Your task to perform on an android device: Search for pizza restaurants on Maps Image 0: 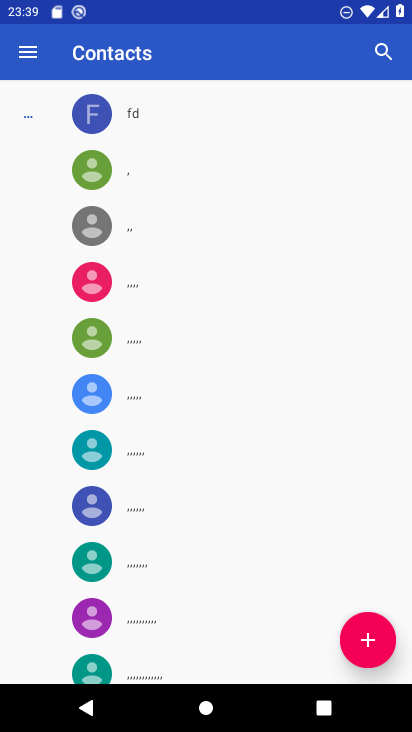
Step 0: press home button
Your task to perform on an android device: Search for pizza restaurants on Maps Image 1: 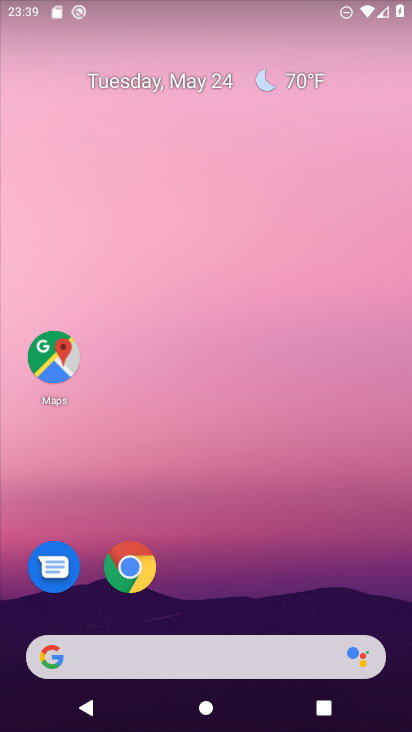
Step 1: click (49, 365)
Your task to perform on an android device: Search for pizza restaurants on Maps Image 2: 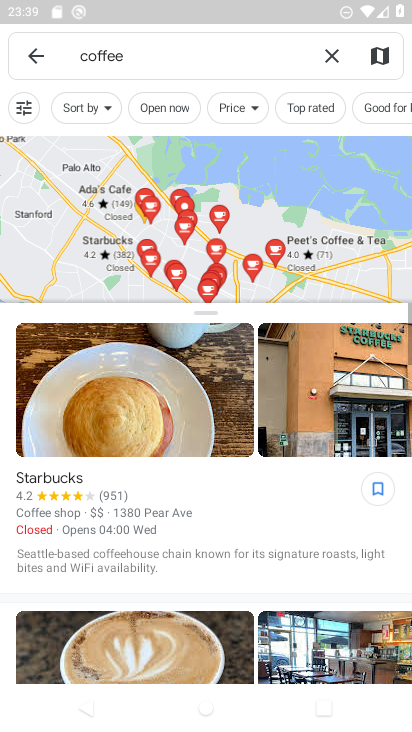
Step 2: click (332, 53)
Your task to perform on an android device: Search for pizza restaurants on Maps Image 3: 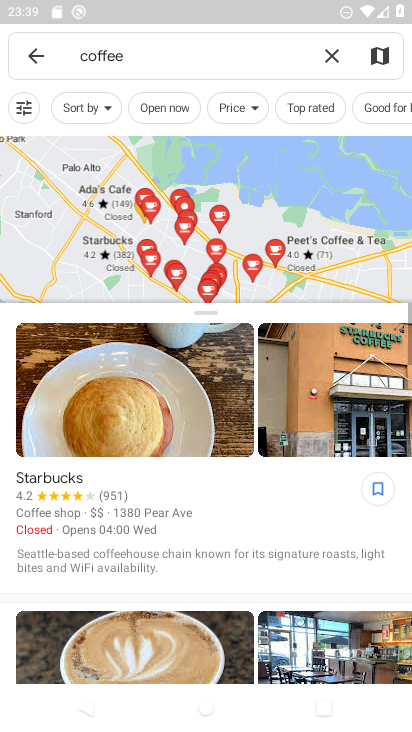
Step 3: click (160, 55)
Your task to perform on an android device: Search for pizza restaurants on Maps Image 4: 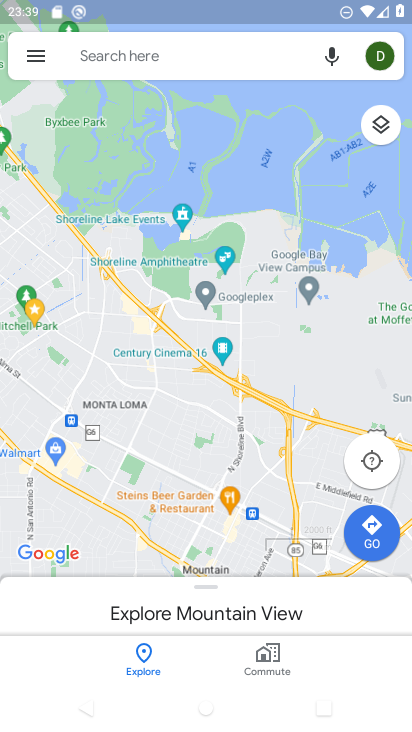
Step 4: click (111, 53)
Your task to perform on an android device: Search for pizza restaurants on Maps Image 5: 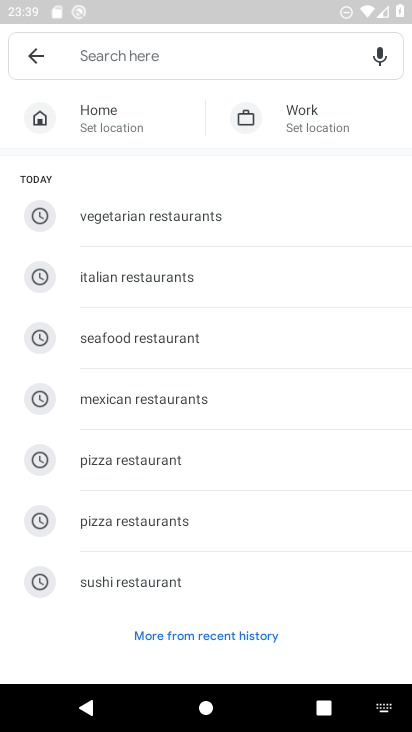
Step 5: click (143, 456)
Your task to perform on an android device: Search for pizza restaurants on Maps Image 6: 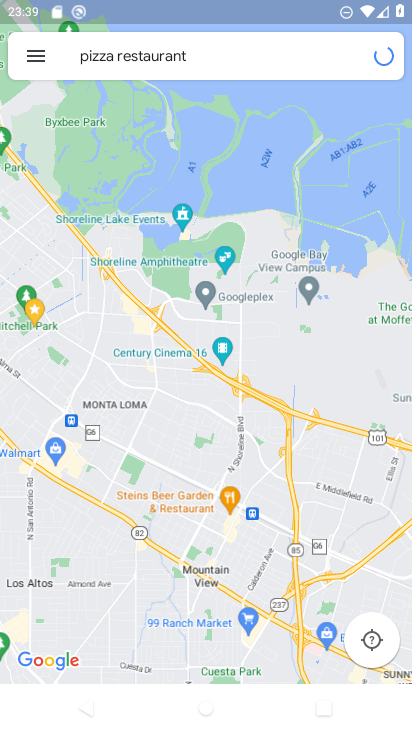
Step 6: task complete